Your task to perform on an android device: toggle javascript in the chrome app Image 0: 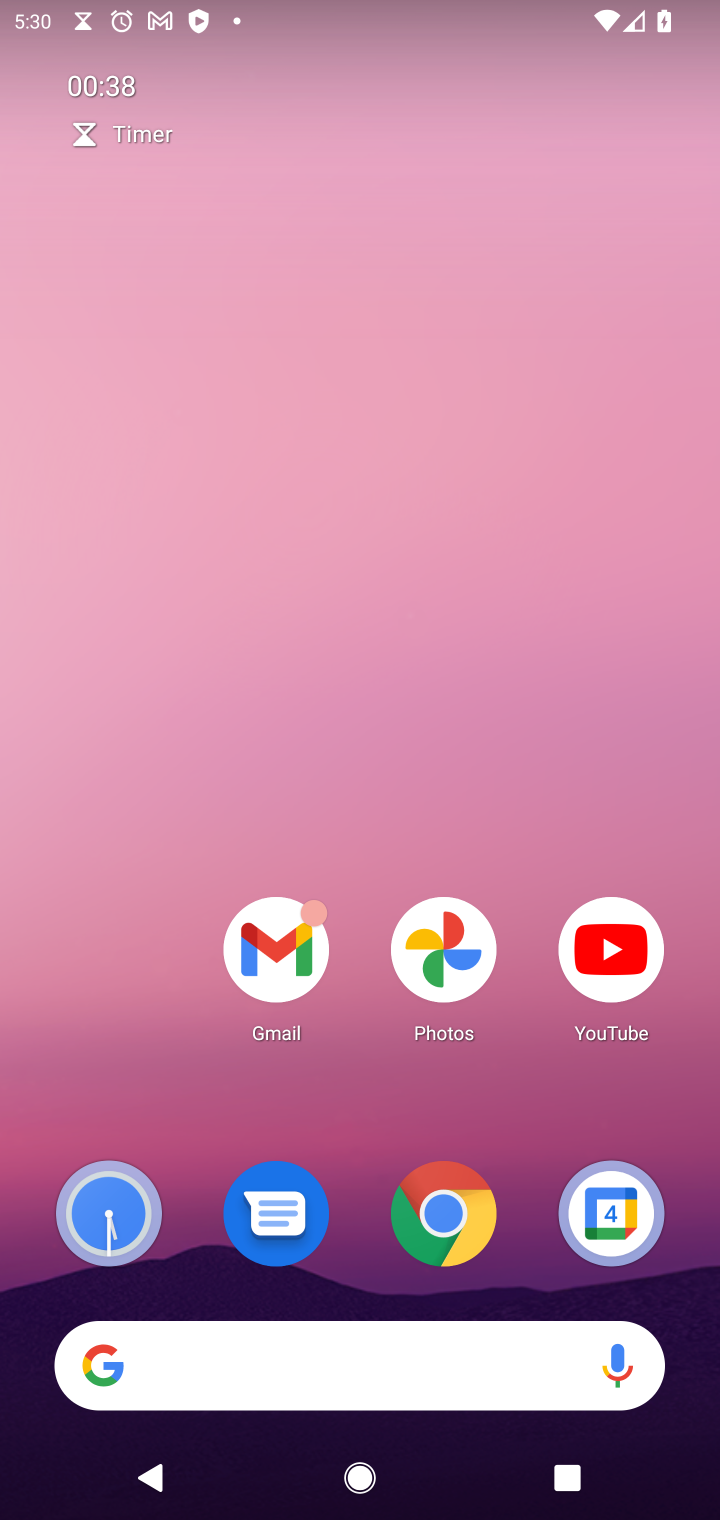
Step 0: click (440, 1226)
Your task to perform on an android device: toggle javascript in the chrome app Image 1: 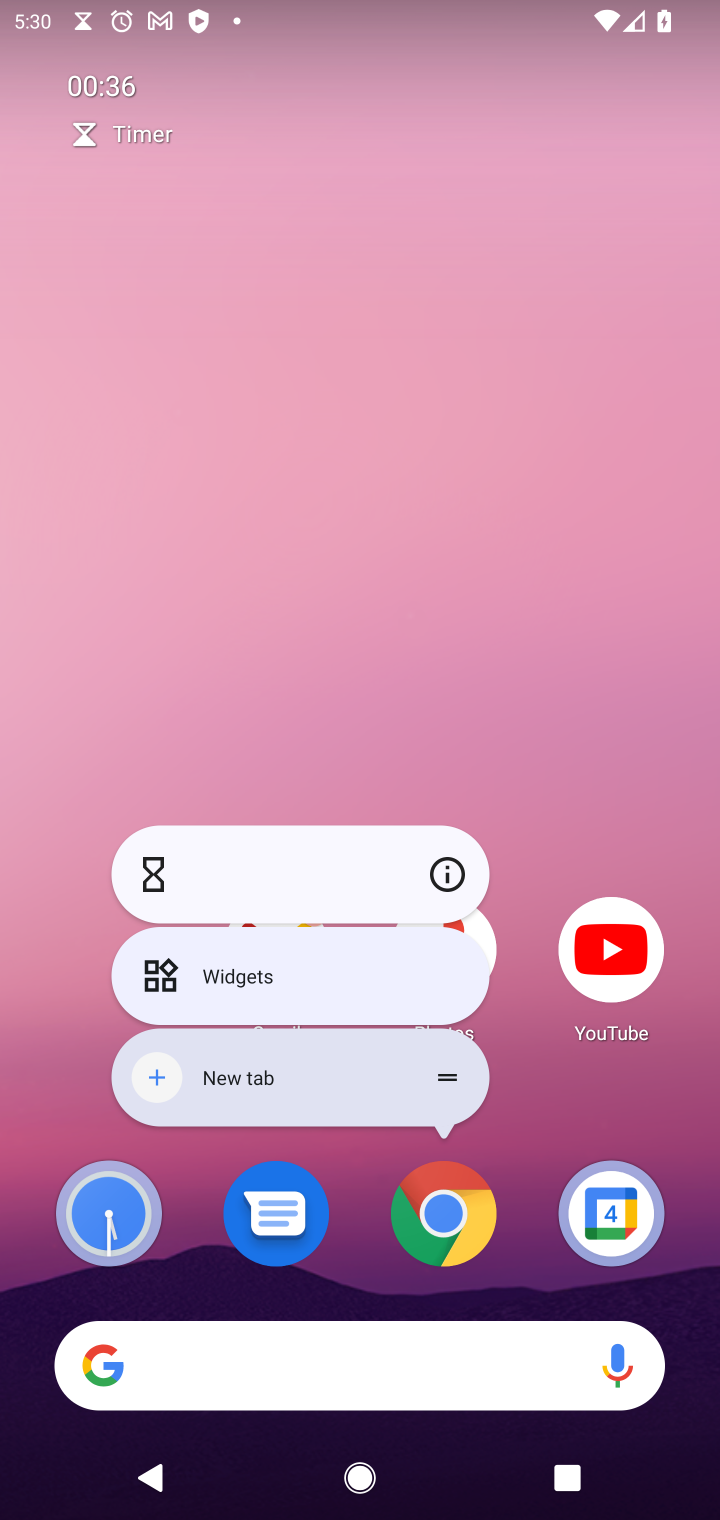
Step 1: click (440, 1226)
Your task to perform on an android device: toggle javascript in the chrome app Image 2: 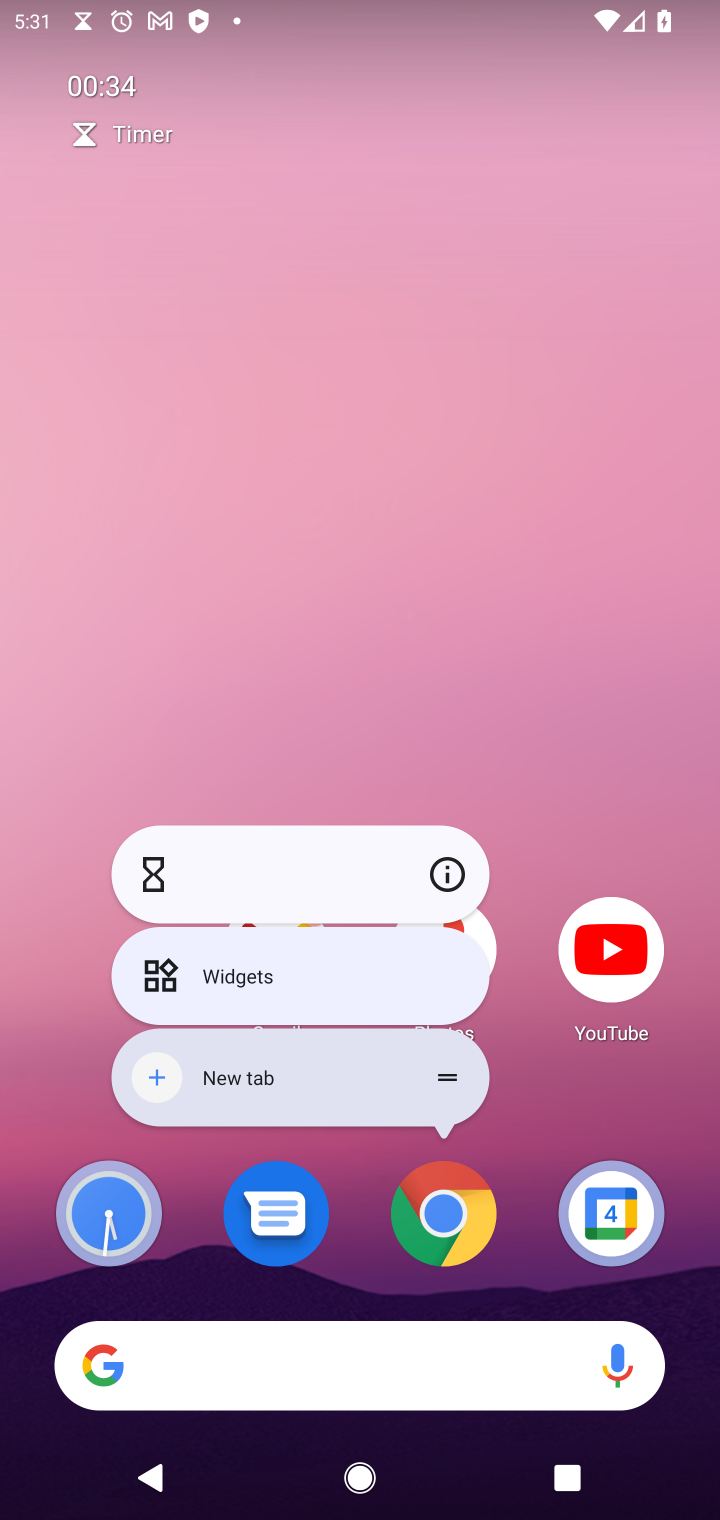
Step 2: click (440, 1226)
Your task to perform on an android device: toggle javascript in the chrome app Image 3: 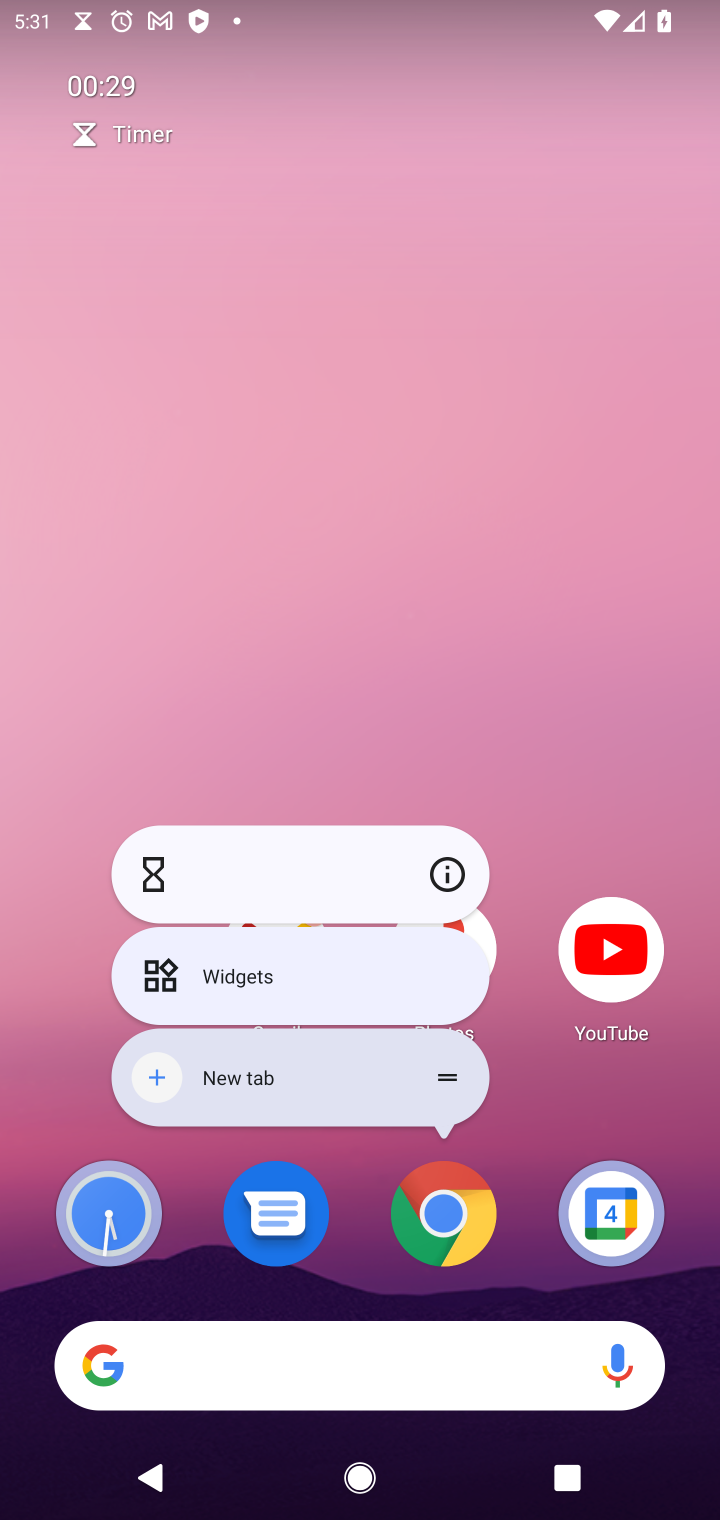
Step 3: click (439, 1225)
Your task to perform on an android device: toggle javascript in the chrome app Image 4: 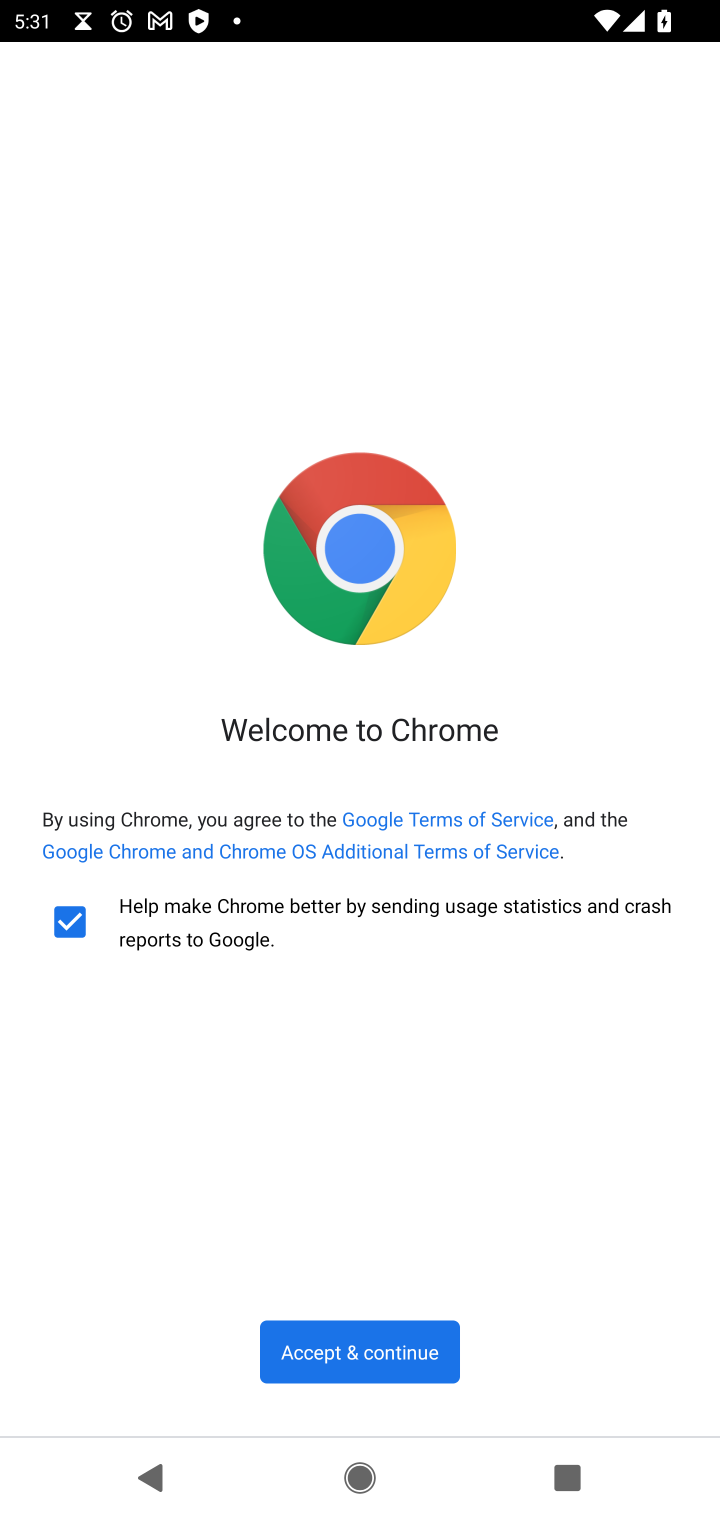
Step 4: click (318, 1375)
Your task to perform on an android device: toggle javascript in the chrome app Image 5: 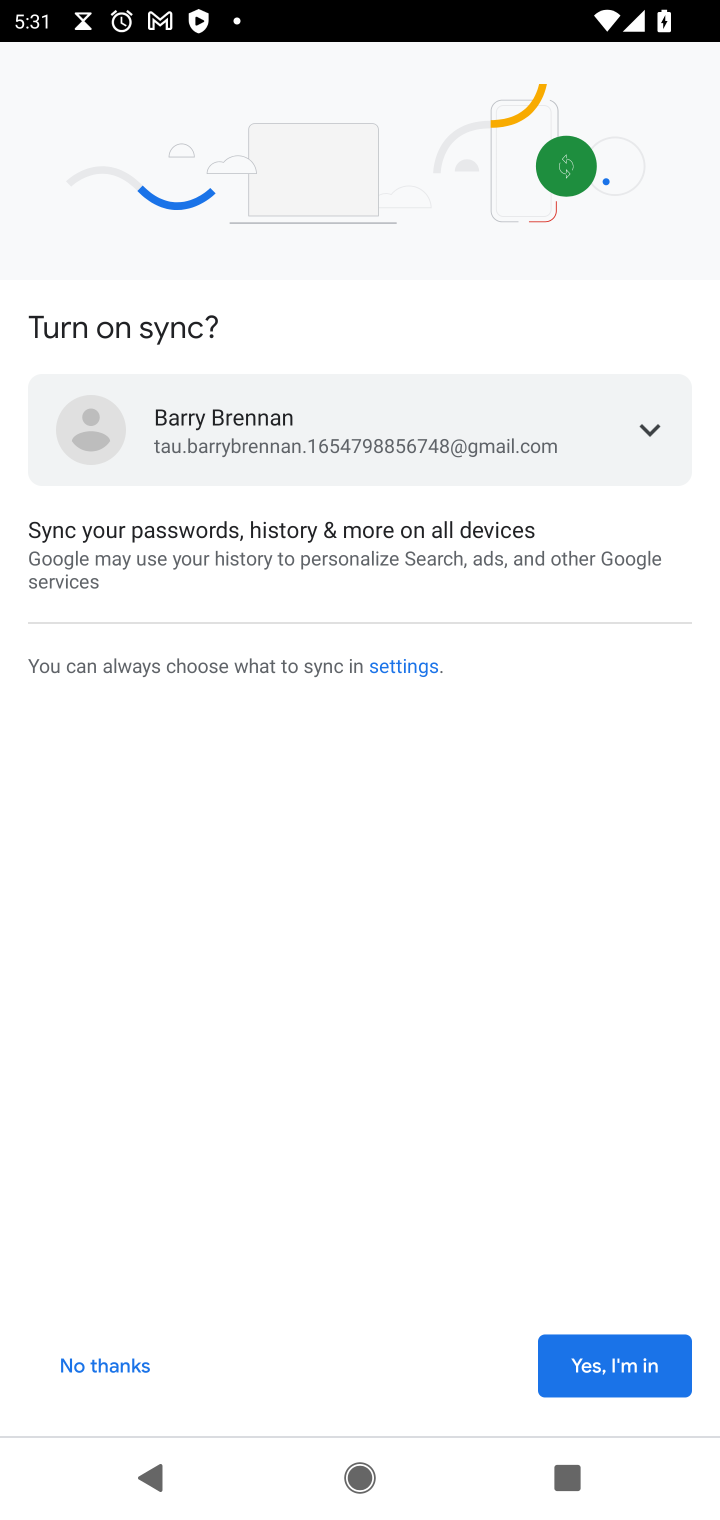
Step 5: click (118, 1372)
Your task to perform on an android device: toggle javascript in the chrome app Image 6: 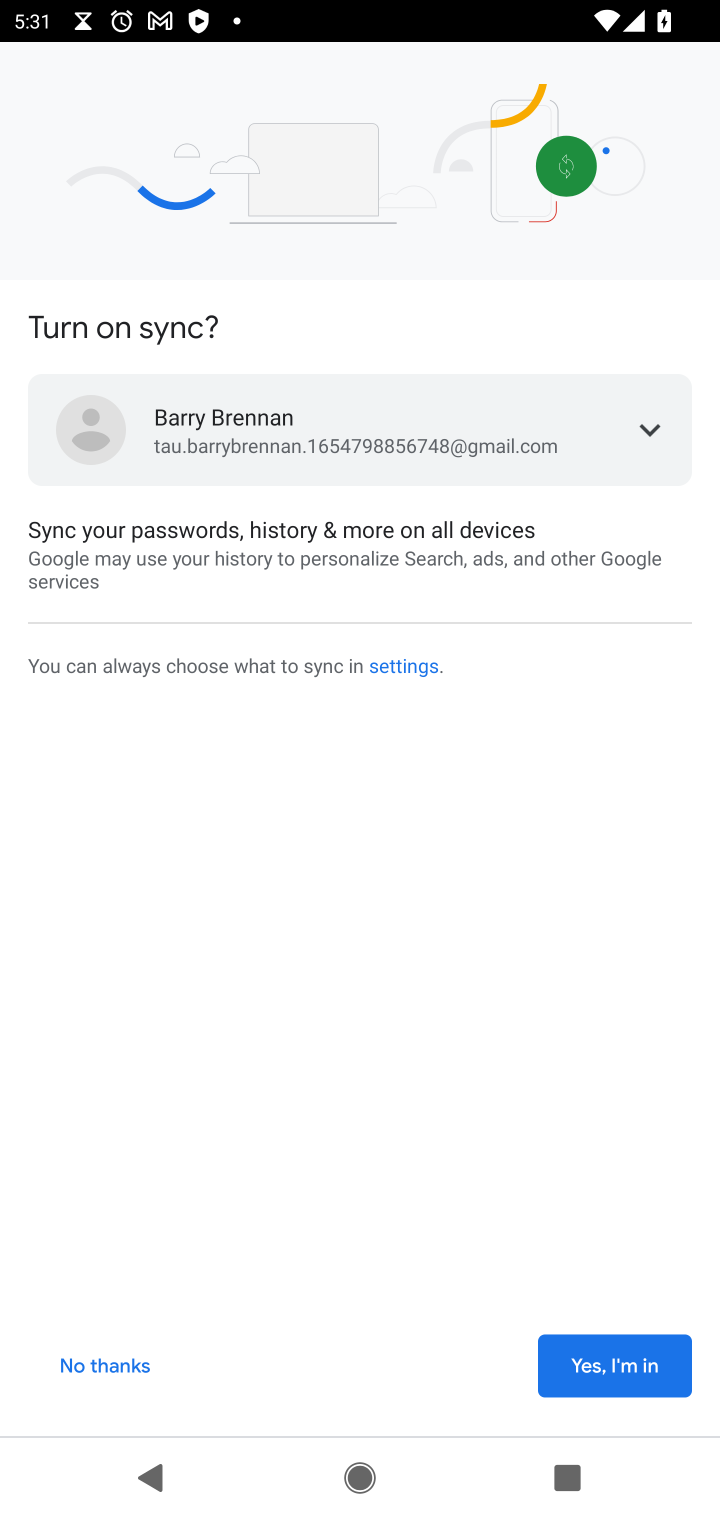
Step 6: click (98, 1370)
Your task to perform on an android device: toggle javascript in the chrome app Image 7: 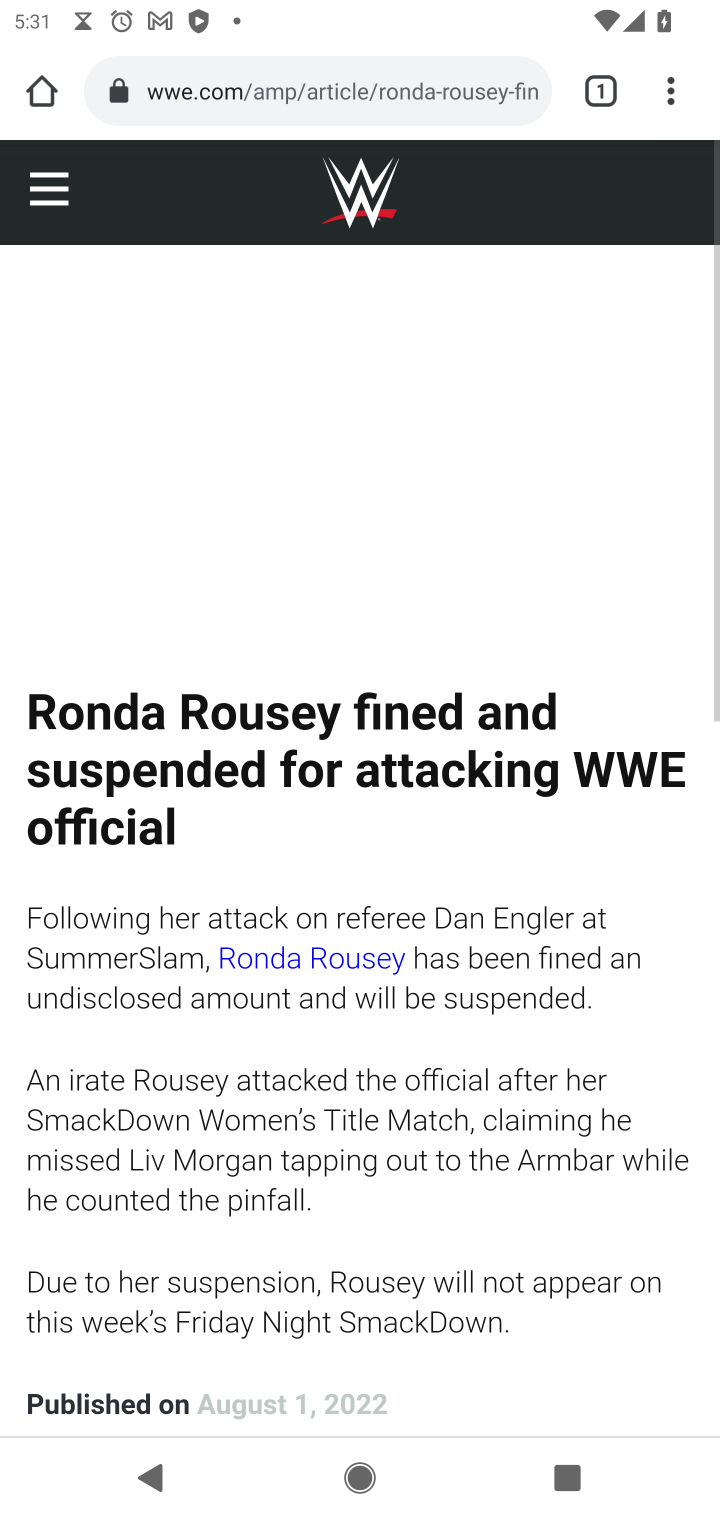
Step 7: drag from (672, 105) to (430, 1168)
Your task to perform on an android device: toggle javascript in the chrome app Image 8: 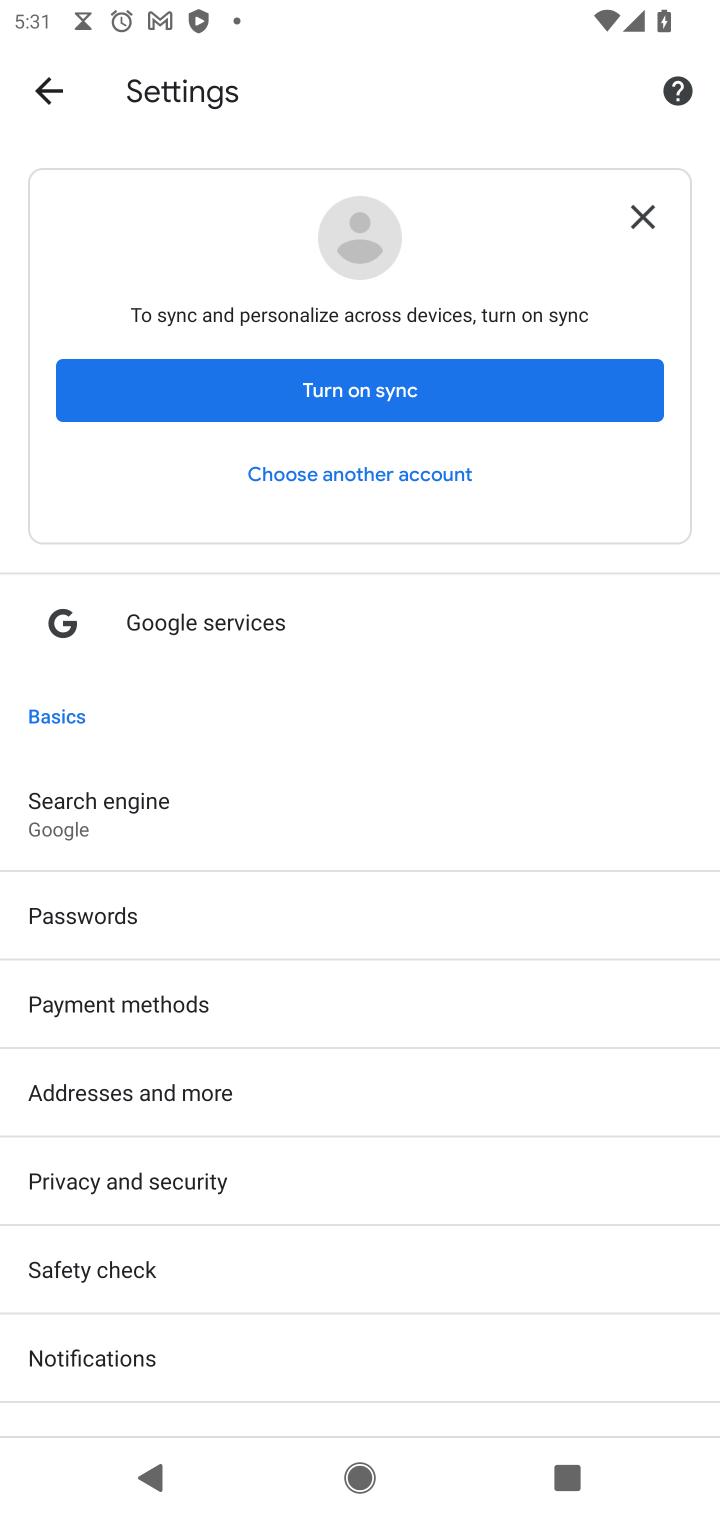
Step 8: drag from (501, 1278) to (534, 475)
Your task to perform on an android device: toggle javascript in the chrome app Image 9: 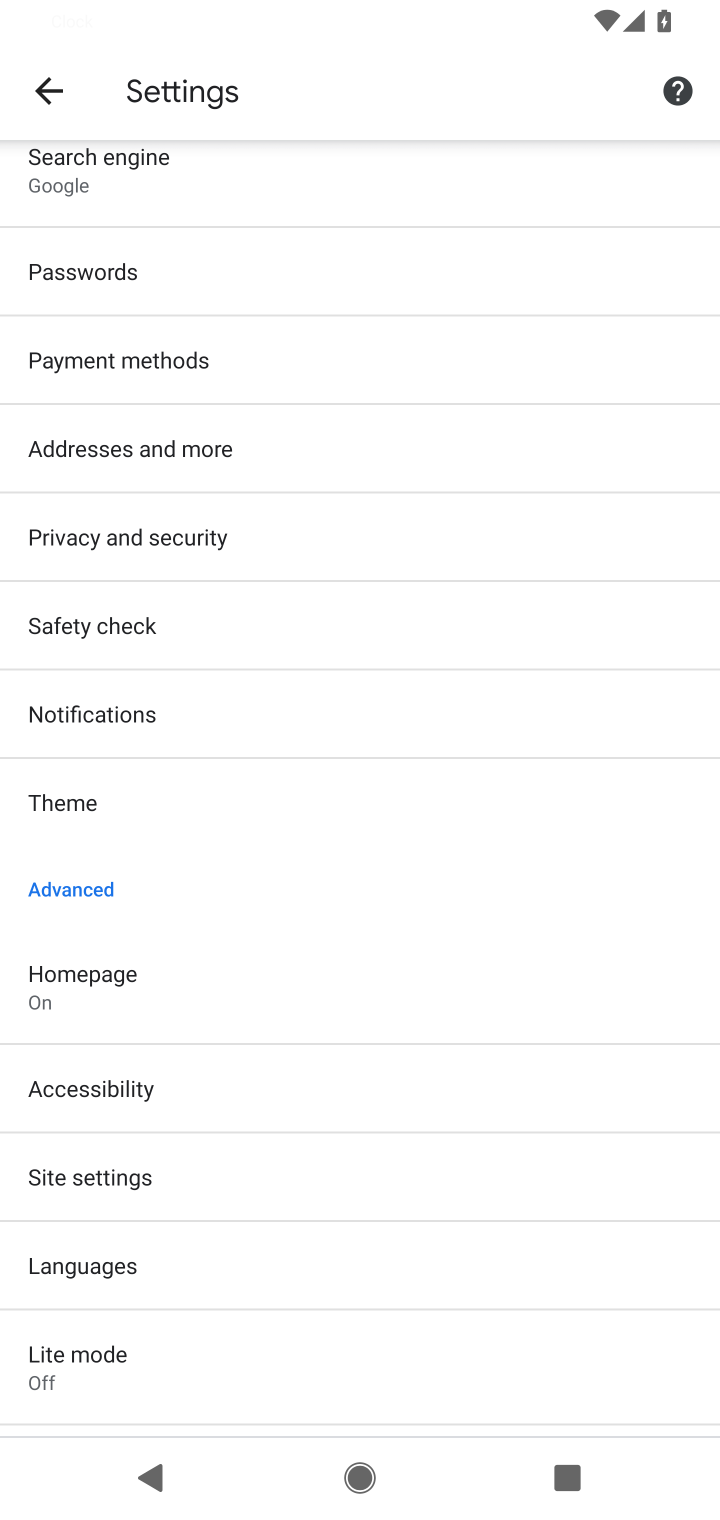
Step 9: click (92, 1179)
Your task to perform on an android device: toggle javascript in the chrome app Image 10: 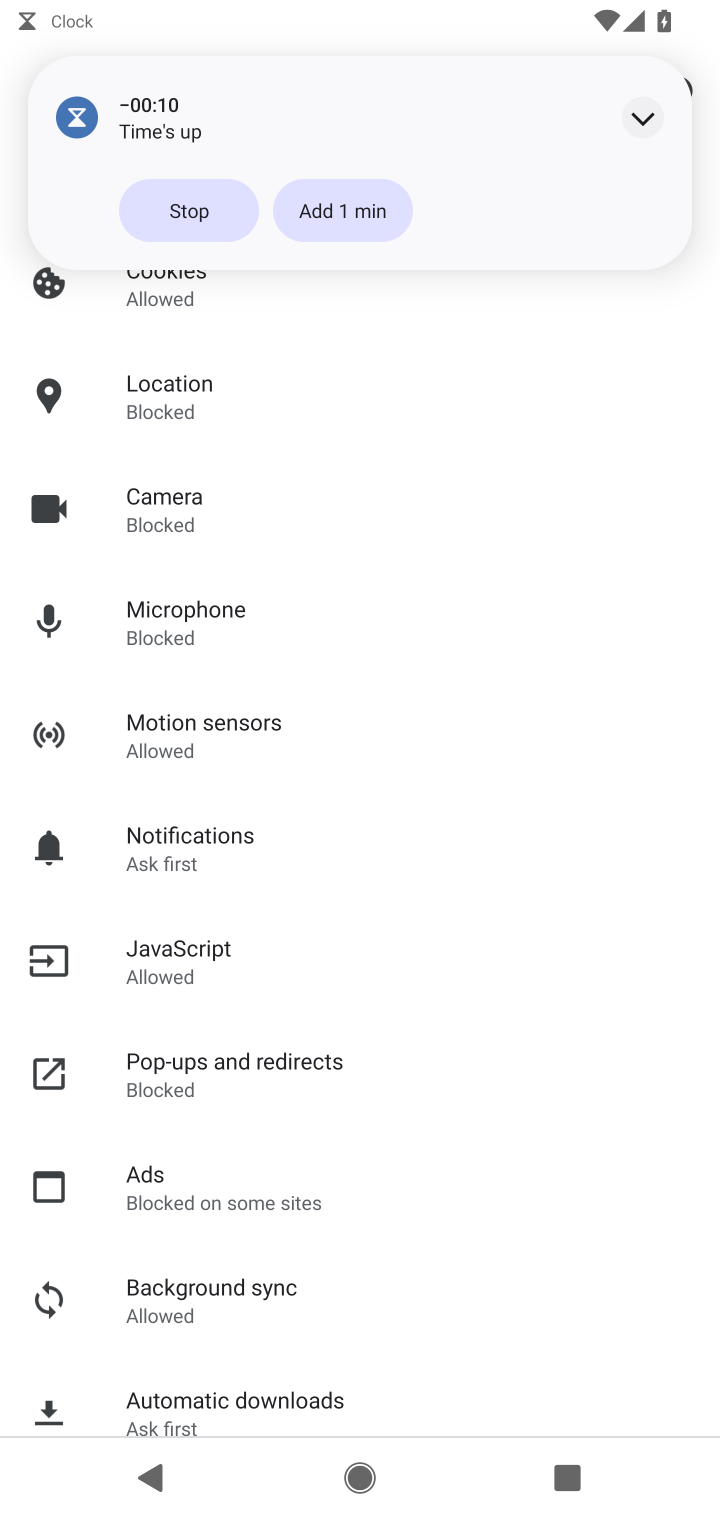
Step 10: click (169, 952)
Your task to perform on an android device: toggle javascript in the chrome app Image 11: 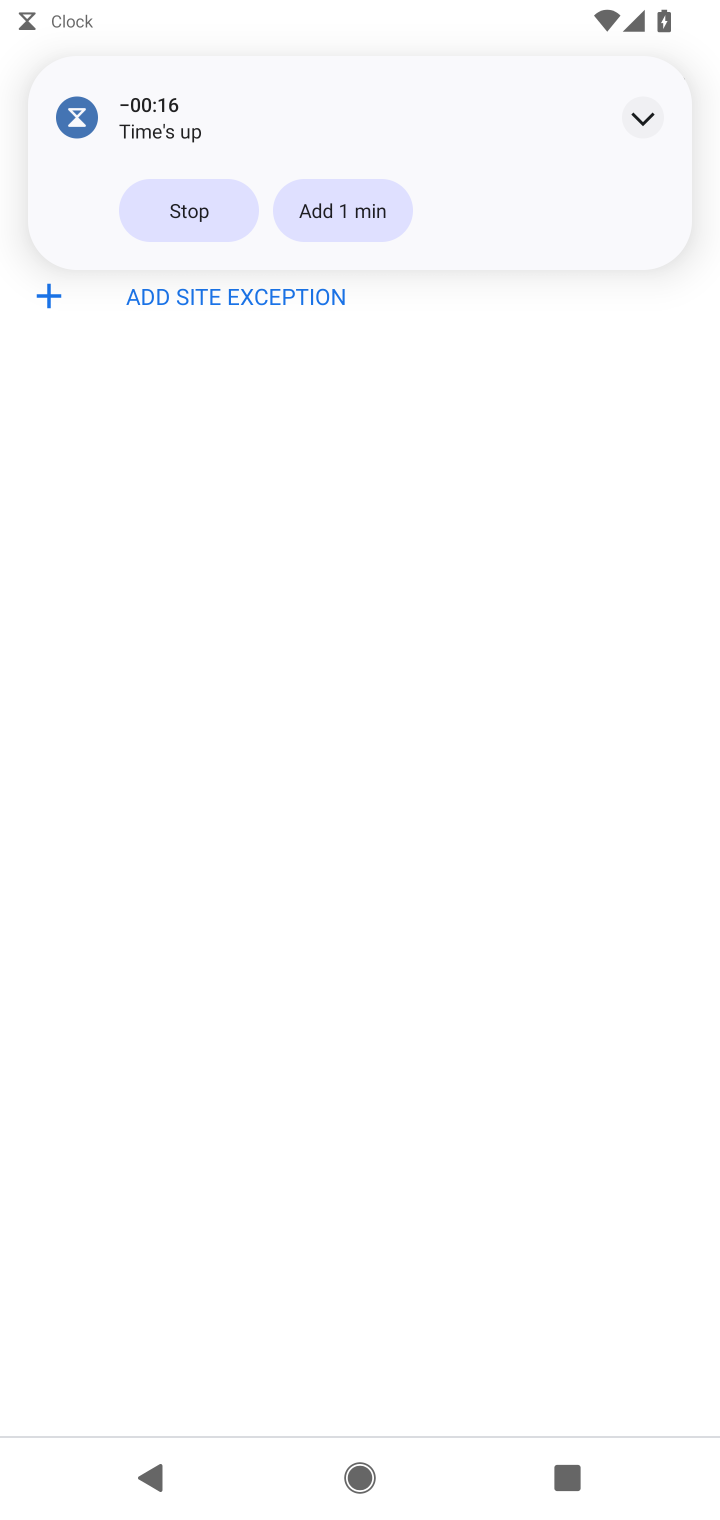
Step 11: click (186, 202)
Your task to perform on an android device: toggle javascript in the chrome app Image 12: 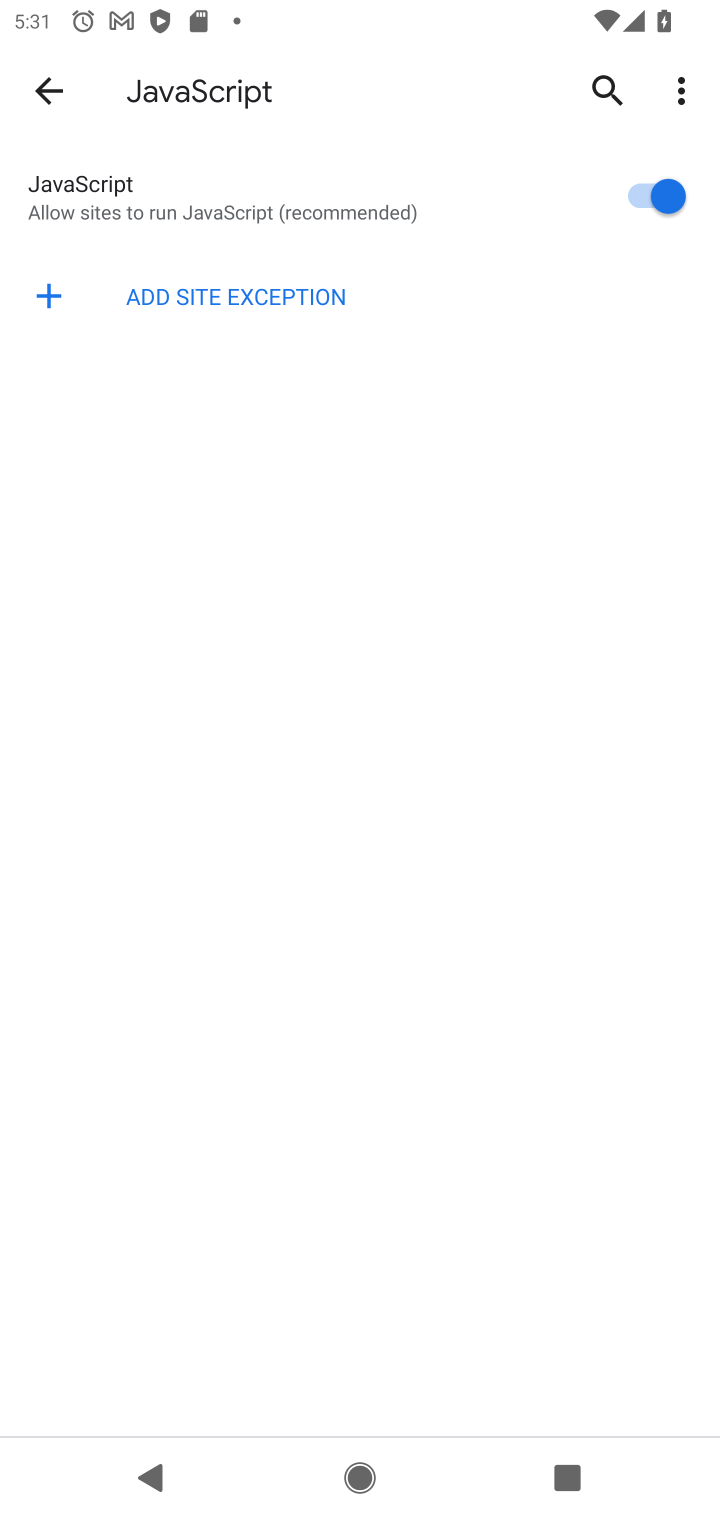
Step 12: click (673, 197)
Your task to perform on an android device: toggle javascript in the chrome app Image 13: 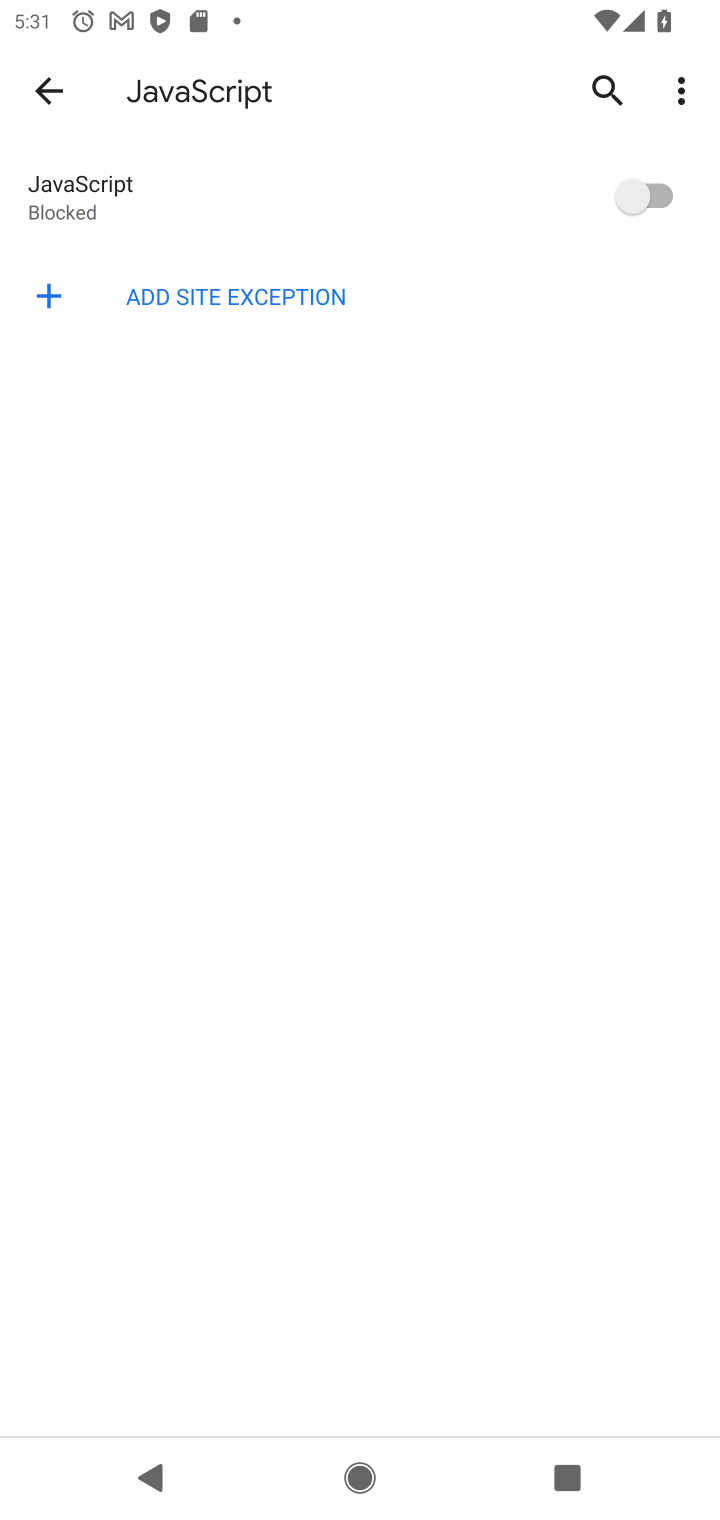
Step 13: task complete